Your task to perform on an android device: uninstall "Life360: Find Family & Friends" Image 0: 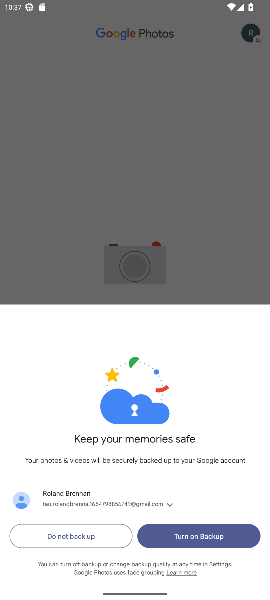
Step 0: press home button
Your task to perform on an android device: uninstall "Life360: Find Family & Friends" Image 1: 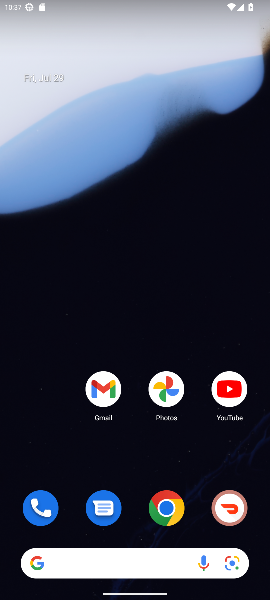
Step 1: drag from (165, 552) to (232, 3)
Your task to perform on an android device: uninstall "Life360: Find Family & Friends" Image 2: 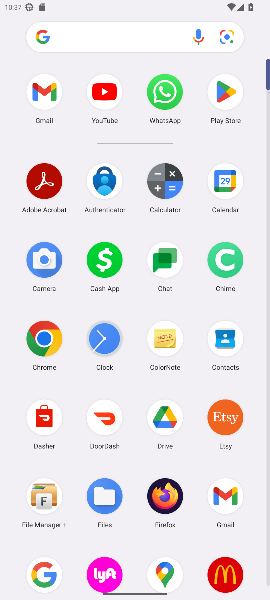
Step 2: click (226, 78)
Your task to perform on an android device: uninstall "Life360: Find Family & Friends" Image 3: 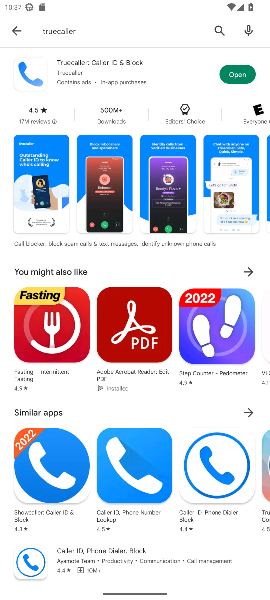
Step 3: click (213, 29)
Your task to perform on an android device: uninstall "Life360: Find Family & Friends" Image 4: 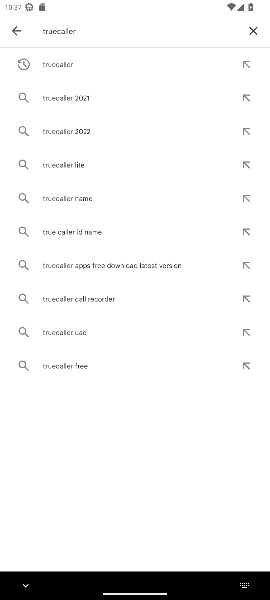
Step 4: click (255, 27)
Your task to perform on an android device: uninstall "Life360: Find Family & Friends" Image 5: 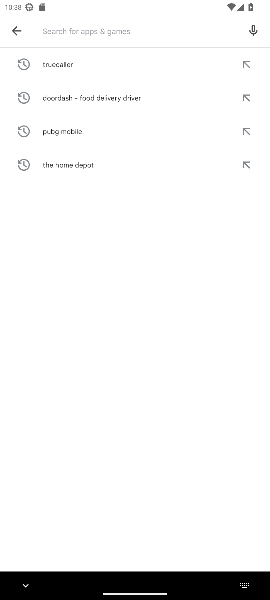
Step 5: type "life360: find family & friends"
Your task to perform on an android device: uninstall "Life360: Find Family & Friends" Image 6: 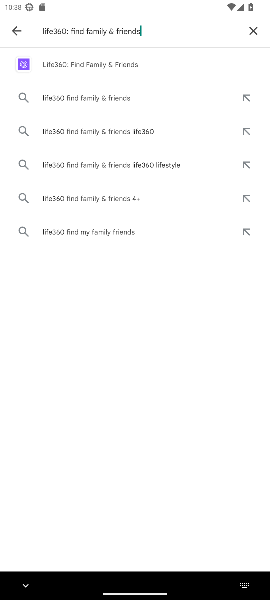
Step 6: click (84, 60)
Your task to perform on an android device: uninstall "Life360: Find Family & Friends" Image 7: 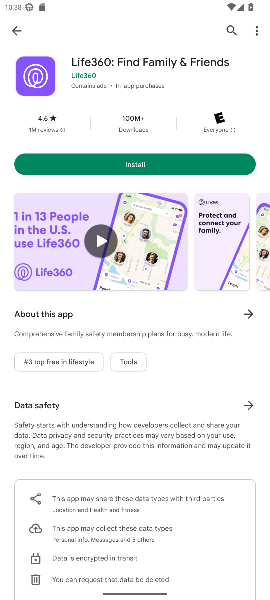
Step 7: task complete